Your task to perform on an android device: When is my next meeting? Image 0: 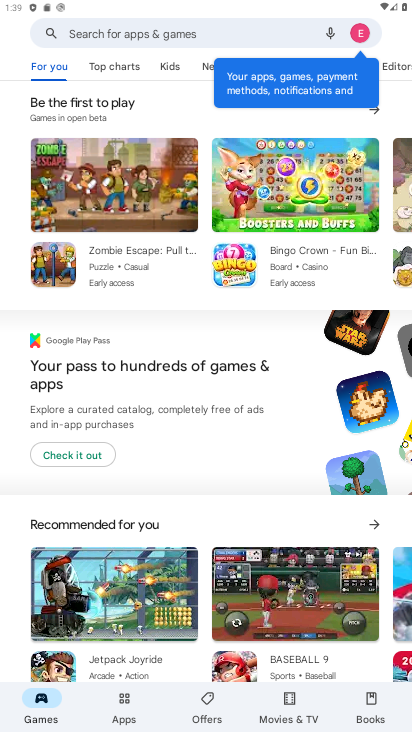
Step 0: press home button
Your task to perform on an android device: When is my next meeting? Image 1: 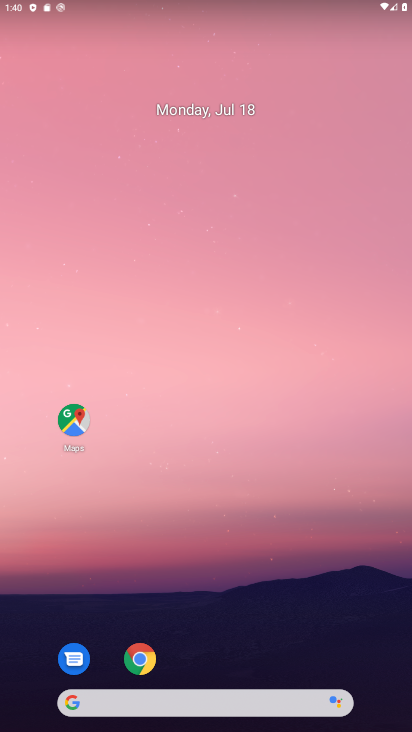
Step 1: drag from (365, 649) to (230, 75)
Your task to perform on an android device: When is my next meeting? Image 2: 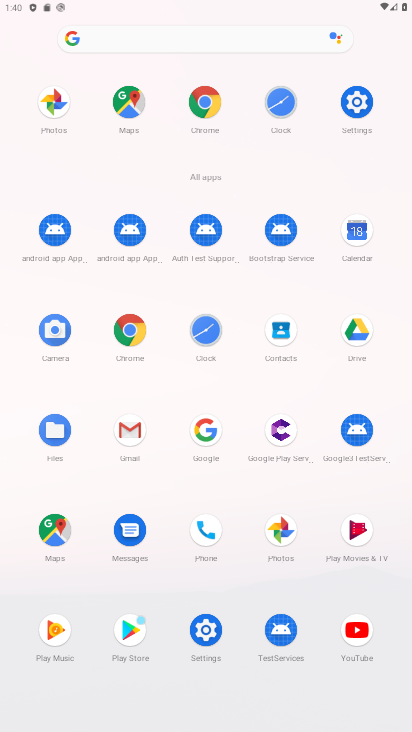
Step 2: click (366, 232)
Your task to perform on an android device: When is my next meeting? Image 3: 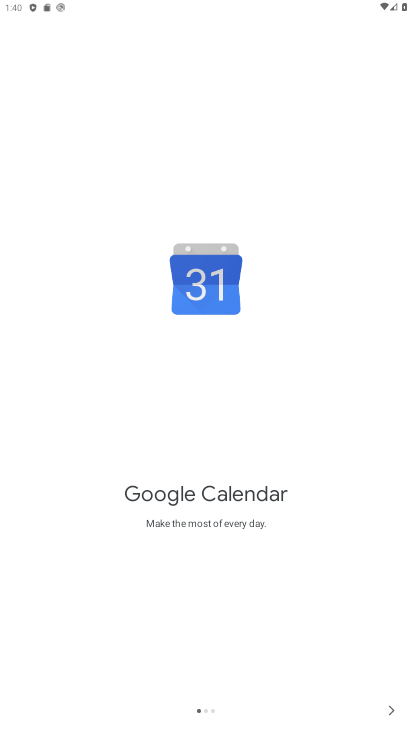
Step 3: click (393, 714)
Your task to perform on an android device: When is my next meeting? Image 4: 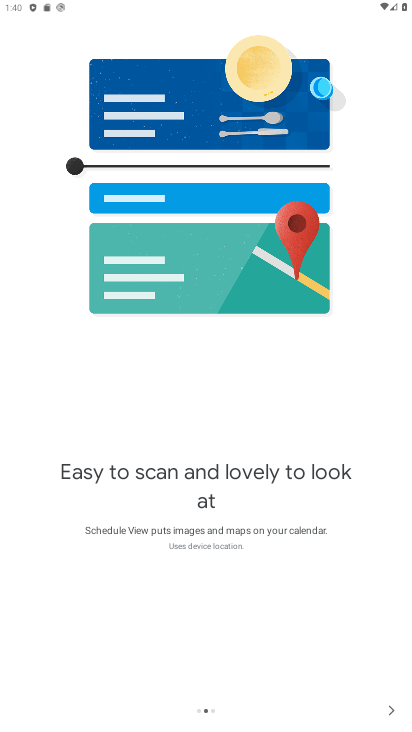
Step 4: click (393, 714)
Your task to perform on an android device: When is my next meeting? Image 5: 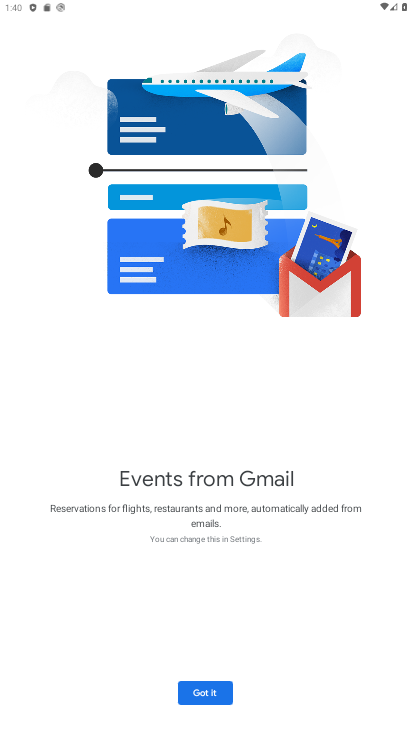
Step 5: click (393, 714)
Your task to perform on an android device: When is my next meeting? Image 6: 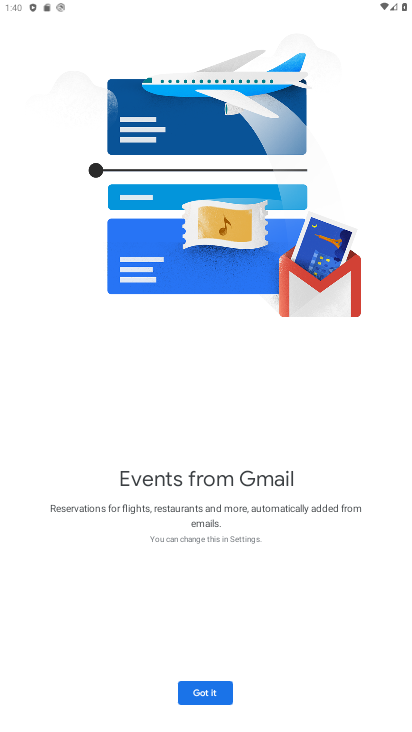
Step 6: click (214, 691)
Your task to perform on an android device: When is my next meeting? Image 7: 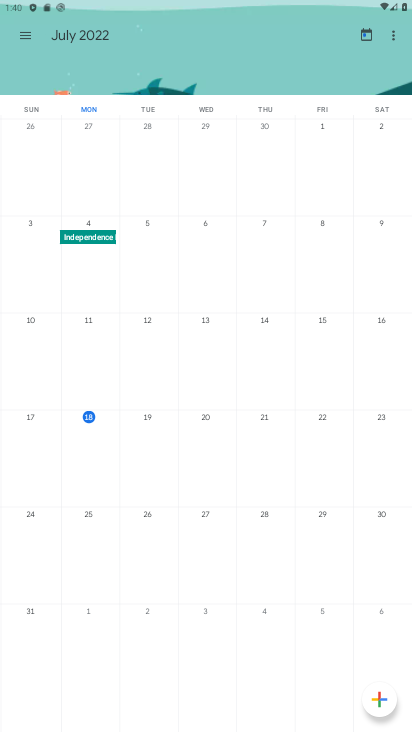
Step 7: click (24, 39)
Your task to perform on an android device: When is my next meeting? Image 8: 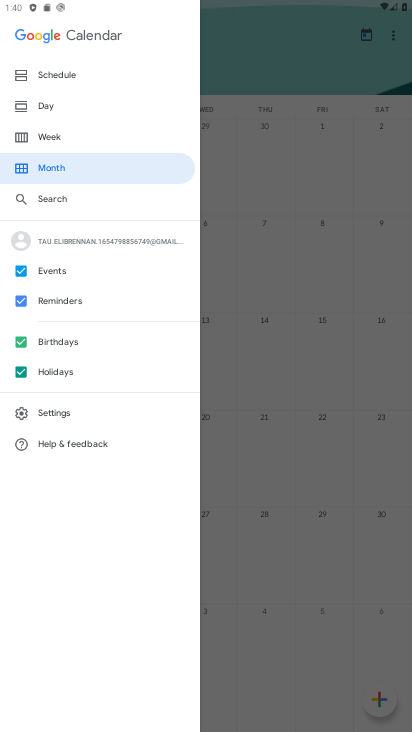
Step 8: click (45, 73)
Your task to perform on an android device: When is my next meeting? Image 9: 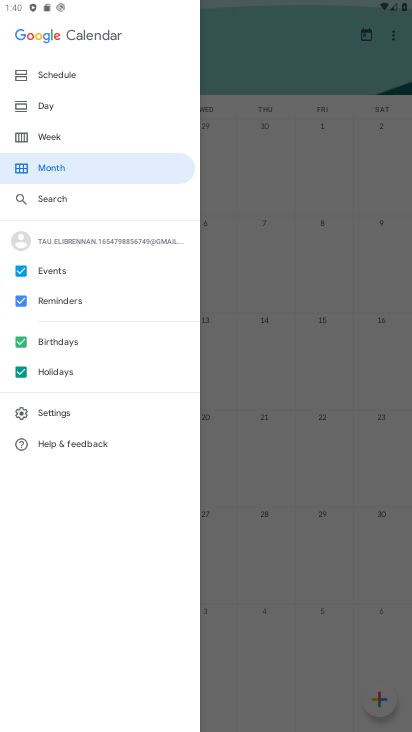
Step 9: click (95, 75)
Your task to perform on an android device: When is my next meeting? Image 10: 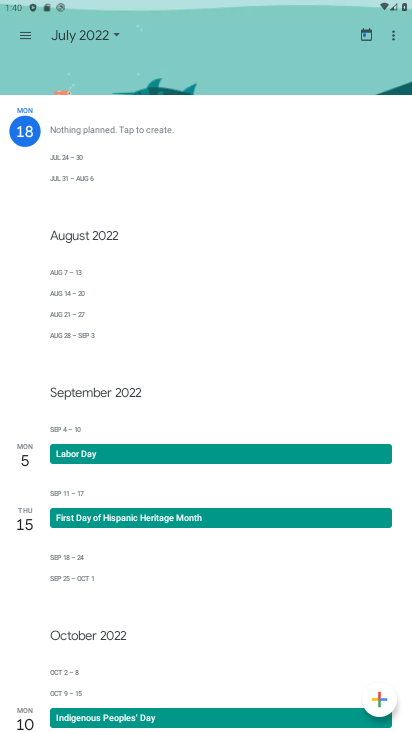
Step 10: task complete